Your task to perform on an android device: turn smart compose on in the gmail app Image 0: 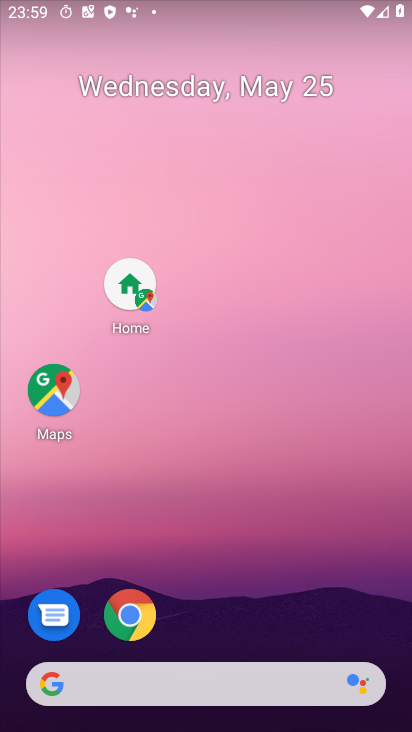
Step 0: press home button
Your task to perform on an android device: turn smart compose on in the gmail app Image 1: 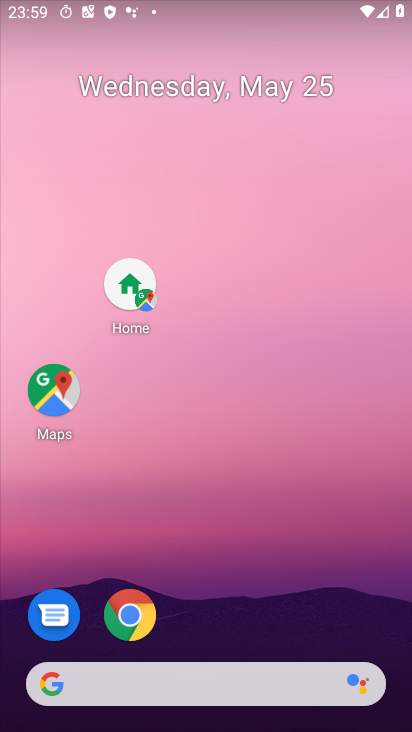
Step 1: drag from (299, 641) to (235, 172)
Your task to perform on an android device: turn smart compose on in the gmail app Image 2: 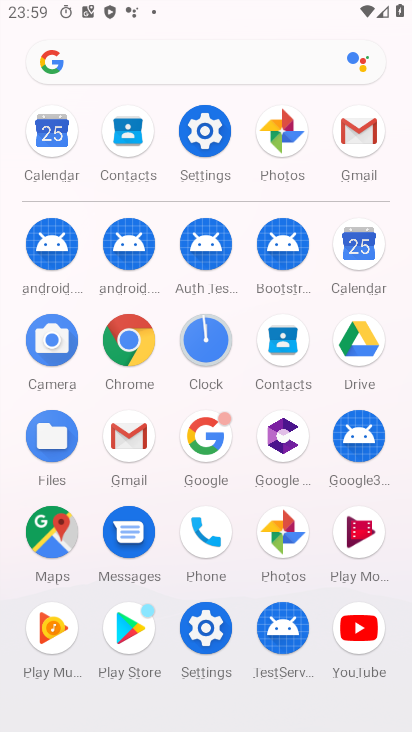
Step 2: click (357, 125)
Your task to perform on an android device: turn smart compose on in the gmail app Image 3: 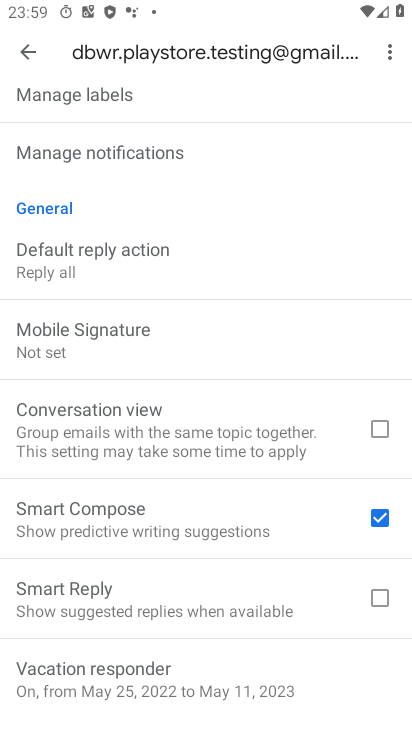
Step 3: task complete